Your task to perform on an android device: Go to Wikipedia Image 0: 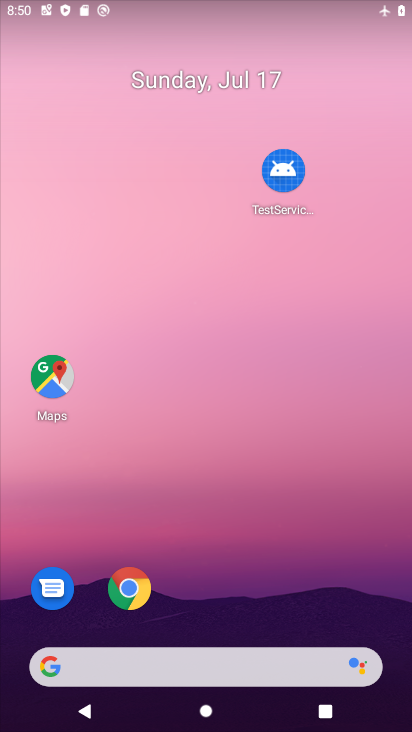
Step 0: drag from (275, 624) to (272, 86)
Your task to perform on an android device: Go to Wikipedia Image 1: 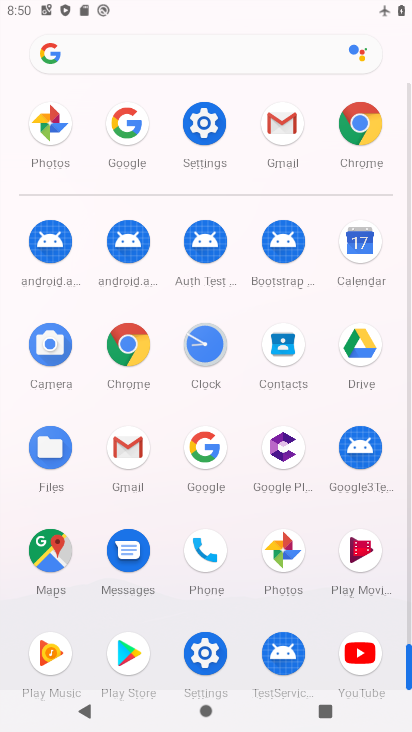
Step 1: click (362, 134)
Your task to perform on an android device: Go to Wikipedia Image 2: 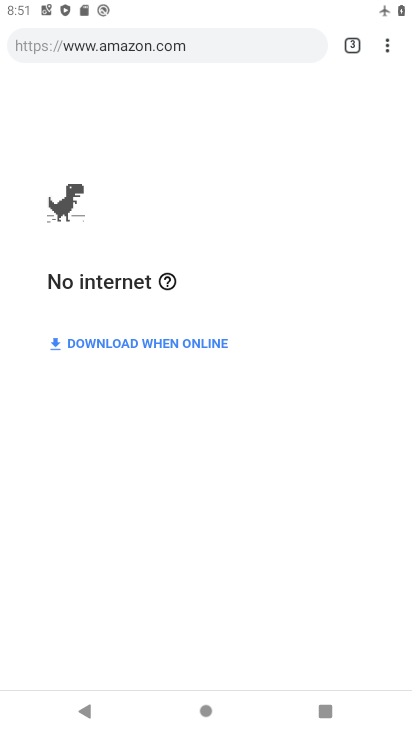
Step 2: click (240, 52)
Your task to perform on an android device: Go to Wikipedia Image 3: 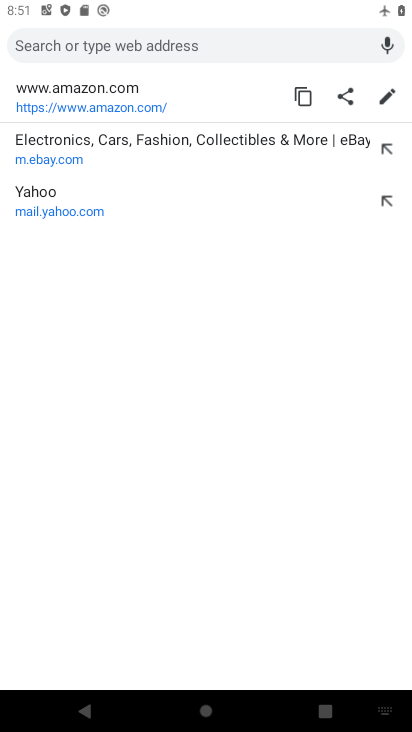
Step 3: task complete